Your task to perform on an android device: make emails show in primary in the gmail app Image 0: 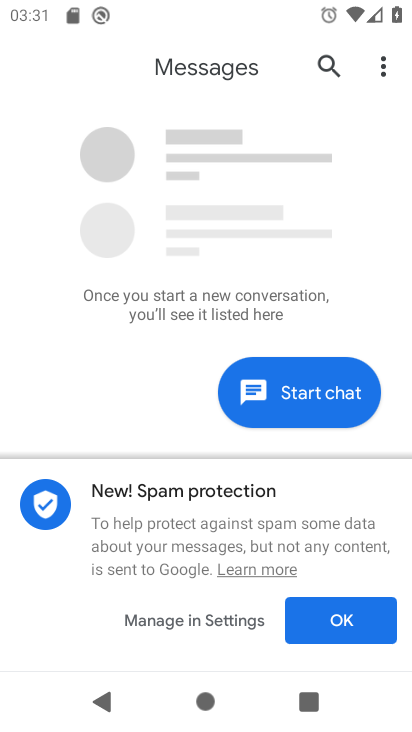
Step 0: press home button
Your task to perform on an android device: make emails show in primary in the gmail app Image 1: 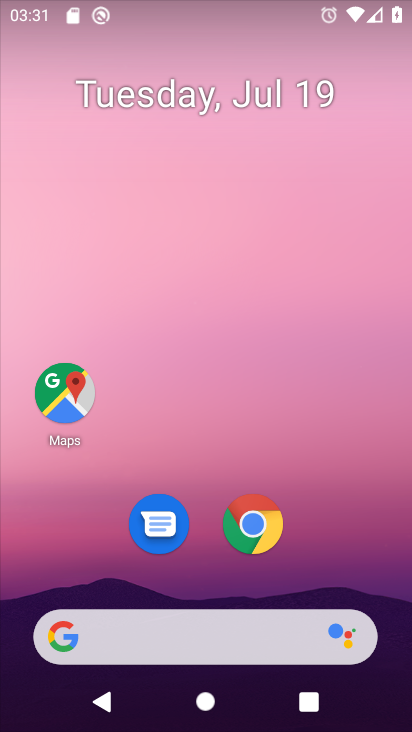
Step 1: drag from (338, 564) to (318, 85)
Your task to perform on an android device: make emails show in primary in the gmail app Image 2: 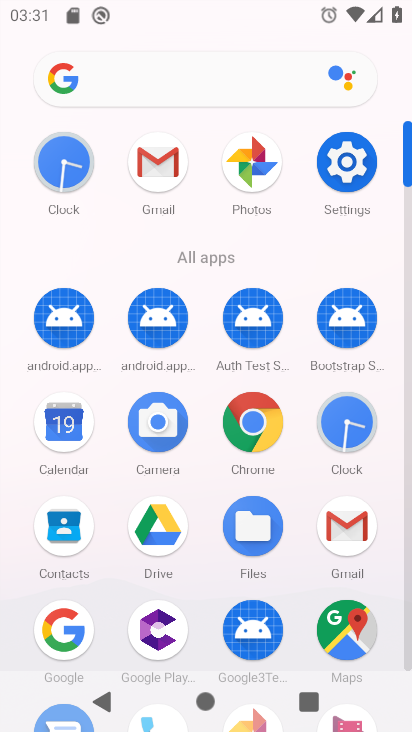
Step 2: click (171, 161)
Your task to perform on an android device: make emails show in primary in the gmail app Image 3: 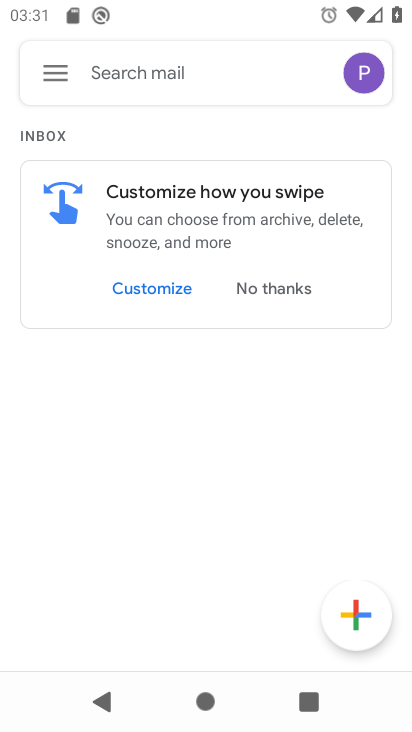
Step 3: click (63, 72)
Your task to perform on an android device: make emails show in primary in the gmail app Image 4: 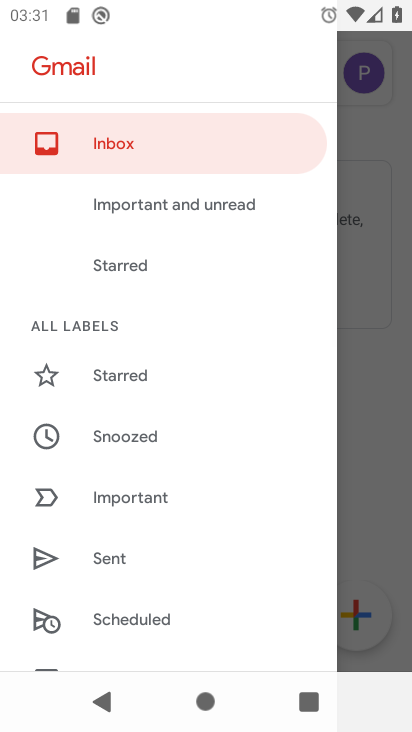
Step 4: drag from (164, 507) to (205, 93)
Your task to perform on an android device: make emails show in primary in the gmail app Image 5: 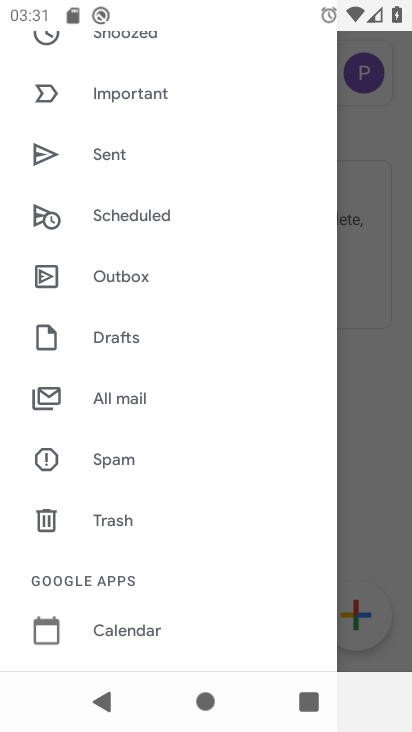
Step 5: drag from (196, 406) to (214, 94)
Your task to perform on an android device: make emails show in primary in the gmail app Image 6: 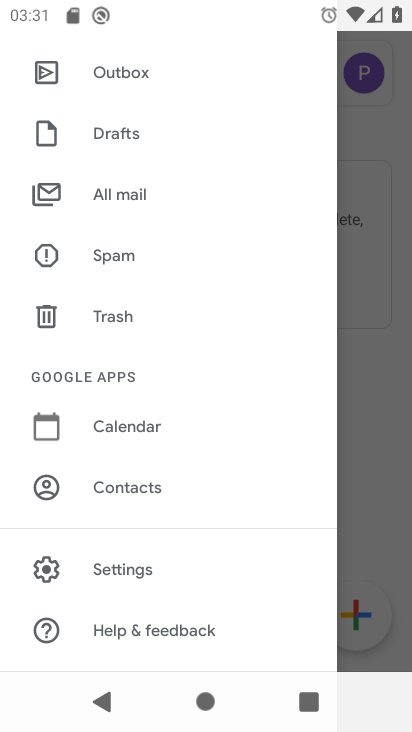
Step 6: click (145, 565)
Your task to perform on an android device: make emails show in primary in the gmail app Image 7: 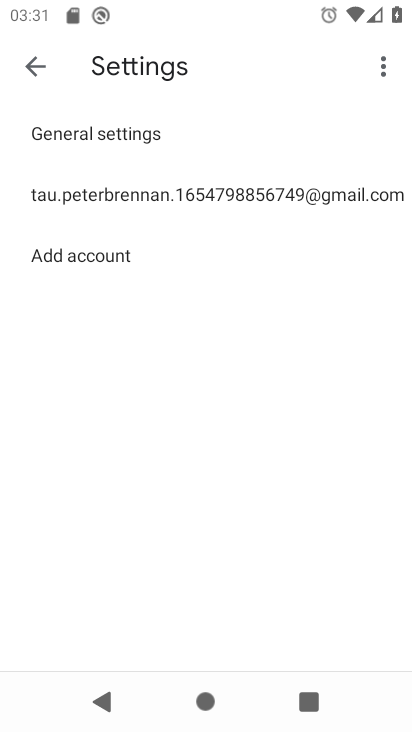
Step 7: click (242, 192)
Your task to perform on an android device: make emails show in primary in the gmail app Image 8: 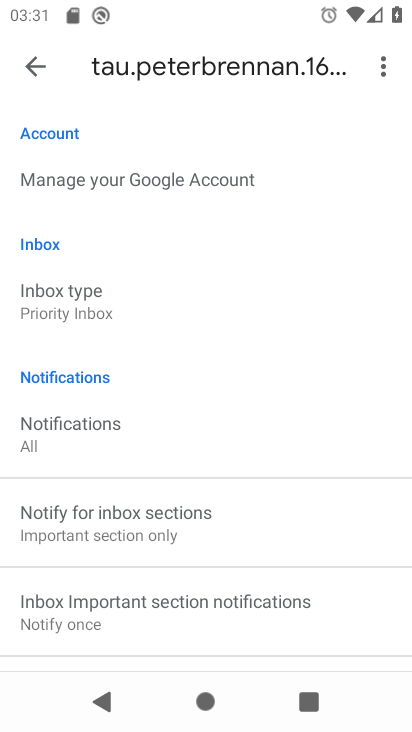
Step 8: click (90, 306)
Your task to perform on an android device: make emails show in primary in the gmail app Image 9: 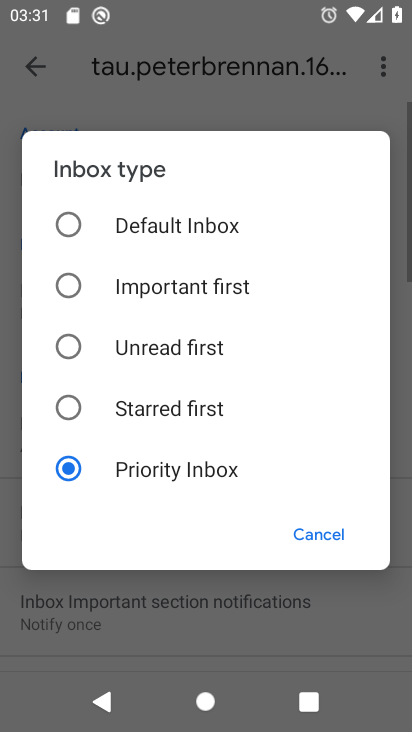
Step 9: click (74, 216)
Your task to perform on an android device: make emails show in primary in the gmail app Image 10: 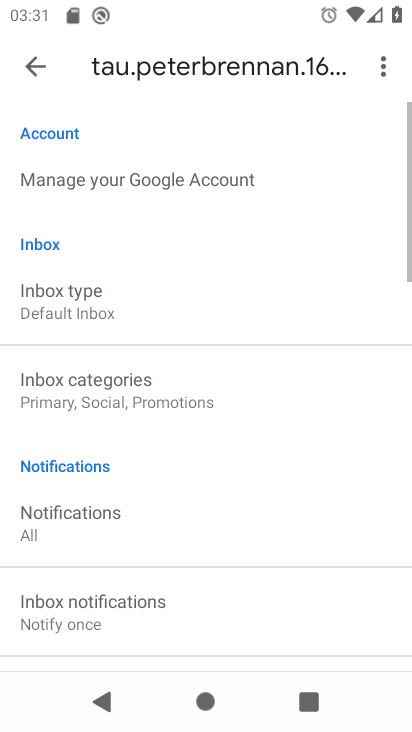
Step 10: click (79, 378)
Your task to perform on an android device: make emails show in primary in the gmail app Image 11: 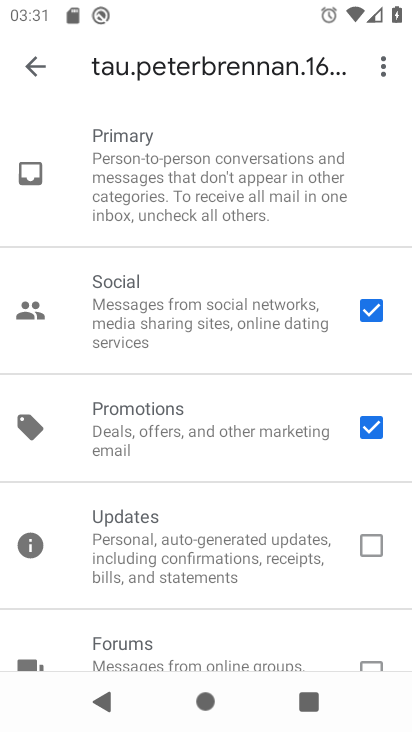
Step 11: click (368, 299)
Your task to perform on an android device: make emails show in primary in the gmail app Image 12: 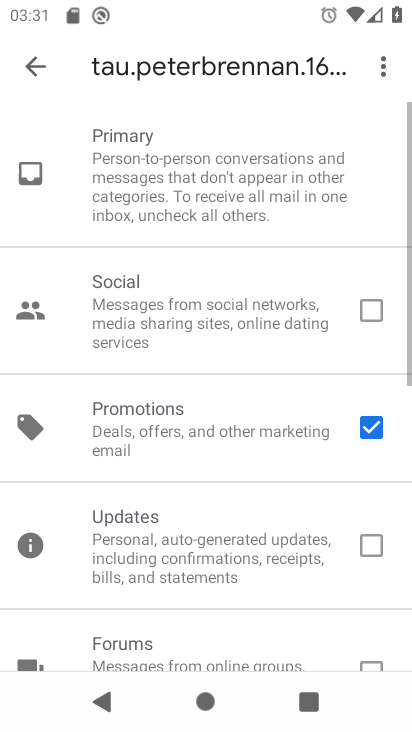
Step 12: click (373, 419)
Your task to perform on an android device: make emails show in primary in the gmail app Image 13: 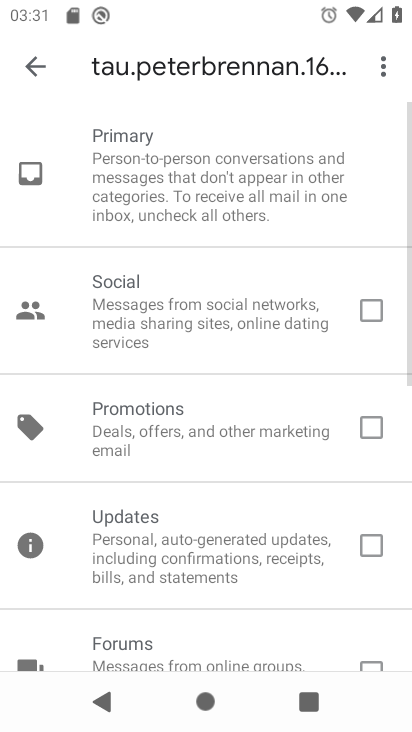
Step 13: click (50, 63)
Your task to perform on an android device: make emails show in primary in the gmail app Image 14: 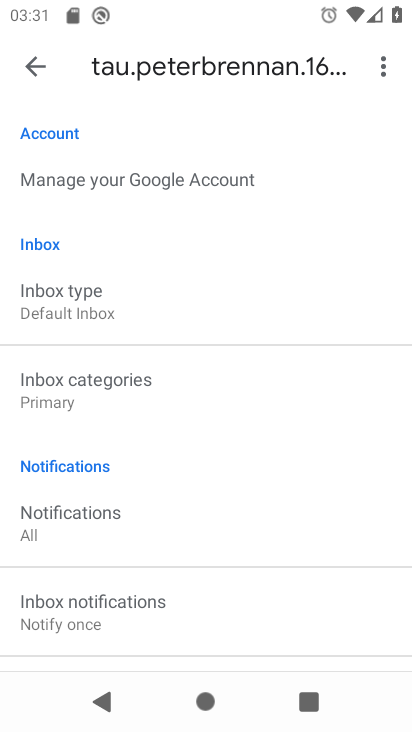
Step 14: task complete